Your task to perform on an android device: Go to Amazon Image 0: 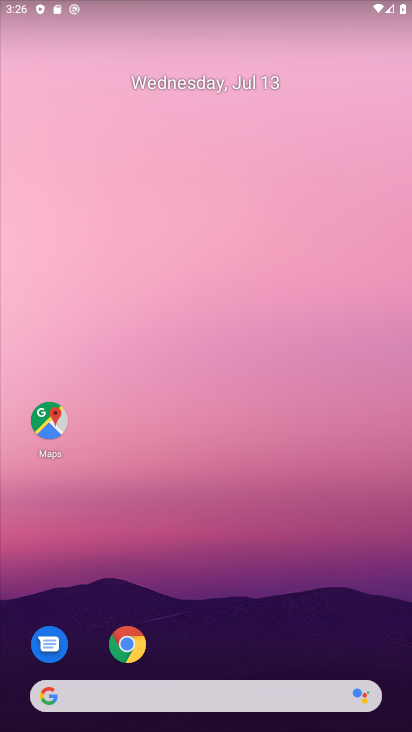
Step 0: click (134, 638)
Your task to perform on an android device: Go to Amazon Image 1: 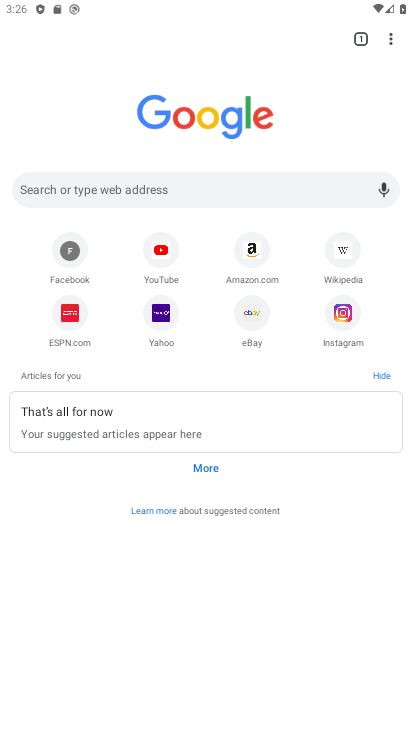
Step 1: click (250, 265)
Your task to perform on an android device: Go to Amazon Image 2: 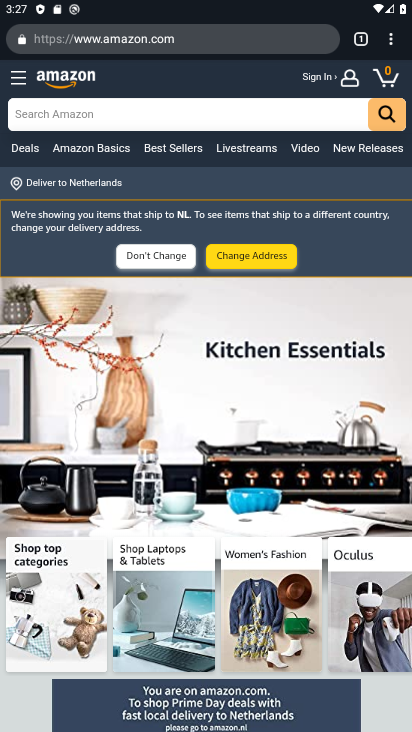
Step 2: task complete